Your task to perform on an android device: Go to Yahoo.com Image 0: 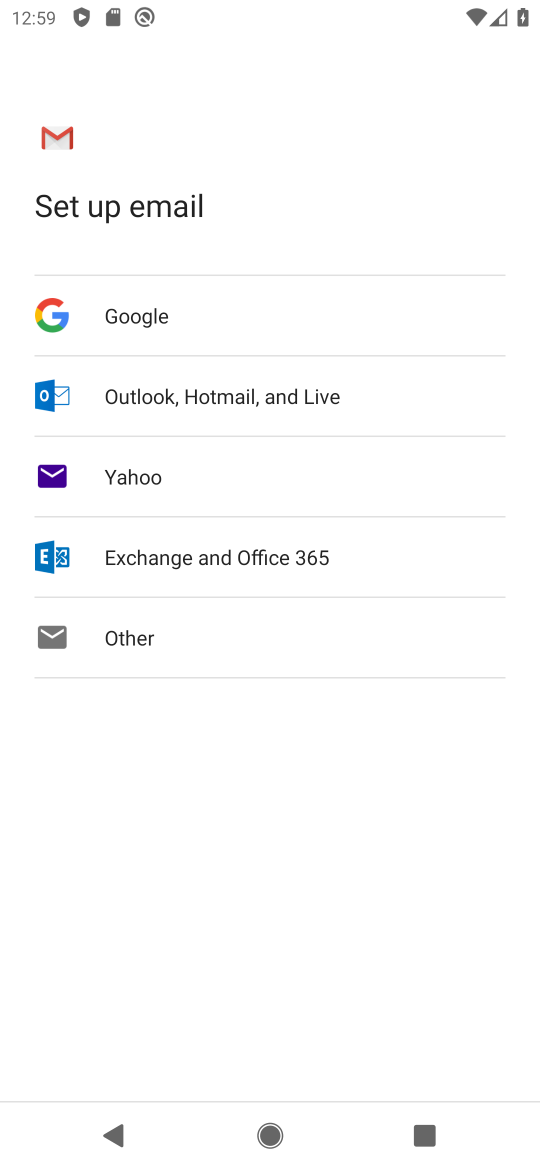
Step 0: press home button
Your task to perform on an android device: Go to Yahoo.com Image 1: 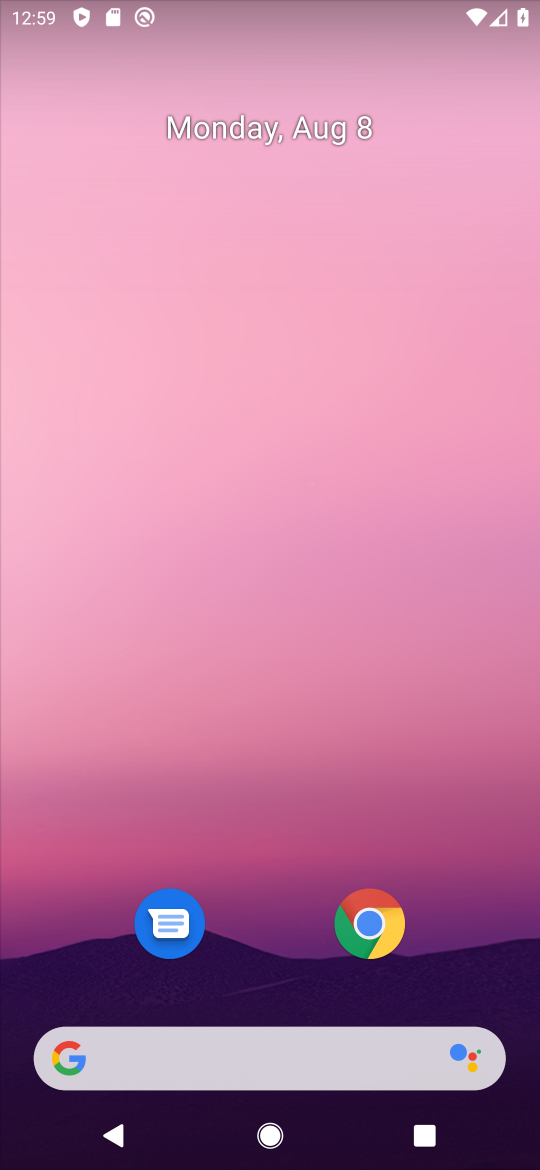
Step 1: click (237, 1071)
Your task to perform on an android device: Go to Yahoo.com Image 2: 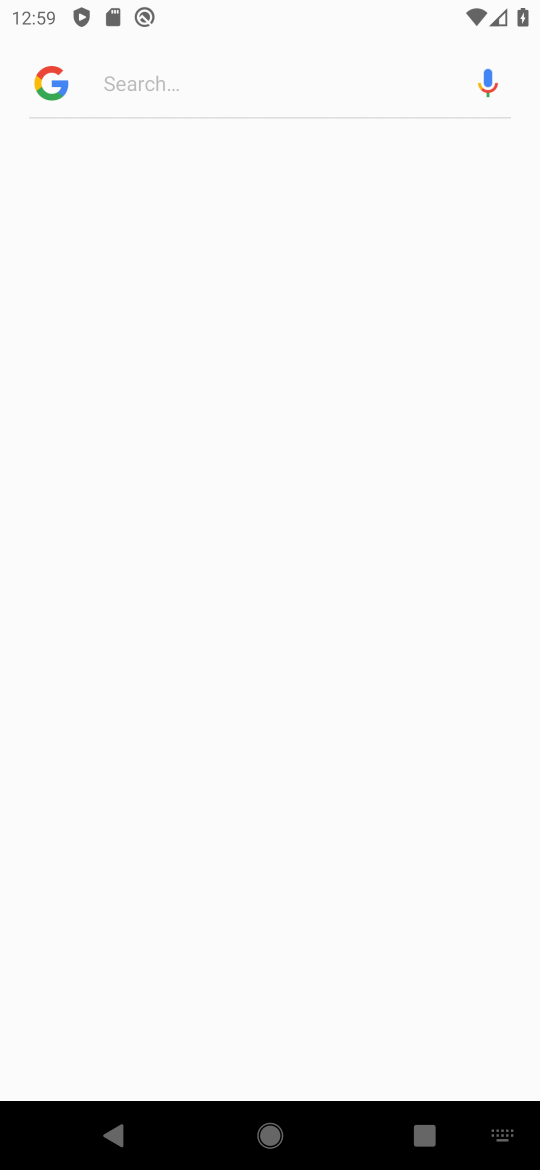
Step 2: type "Yahoo.com"
Your task to perform on an android device: Go to Yahoo.com Image 3: 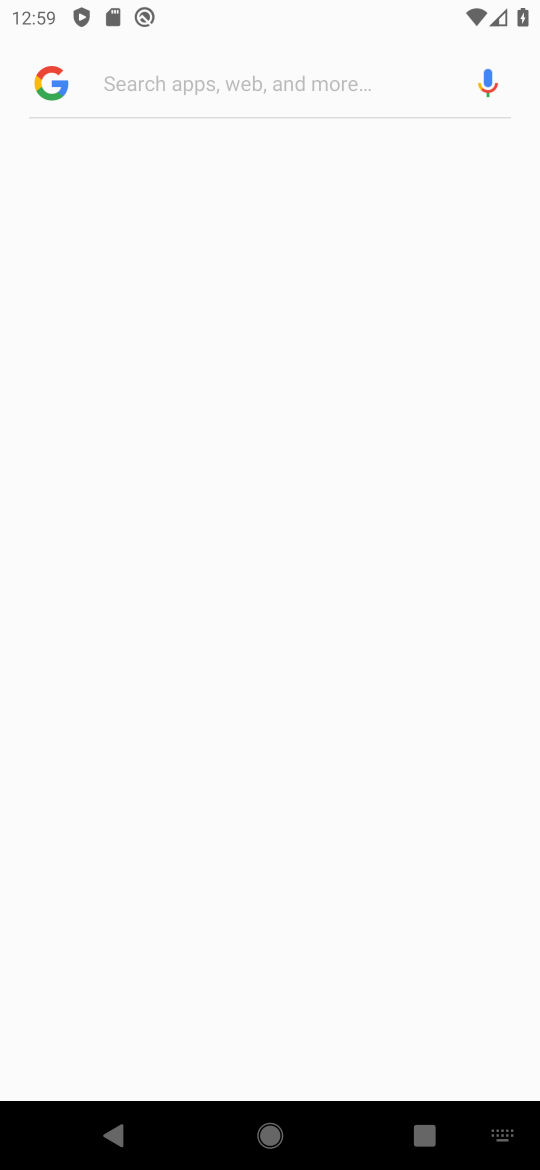
Step 3: press enter
Your task to perform on an android device: Go to Yahoo.com Image 4: 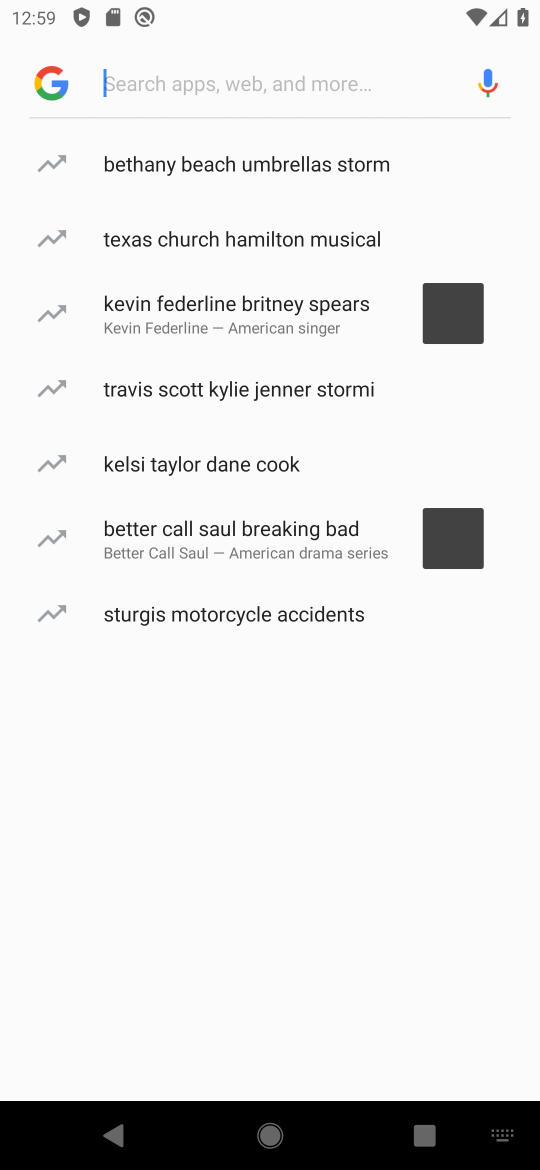
Step 4: press enter
Your task to perform on an android device: Go to Yahoo.com Image 5: 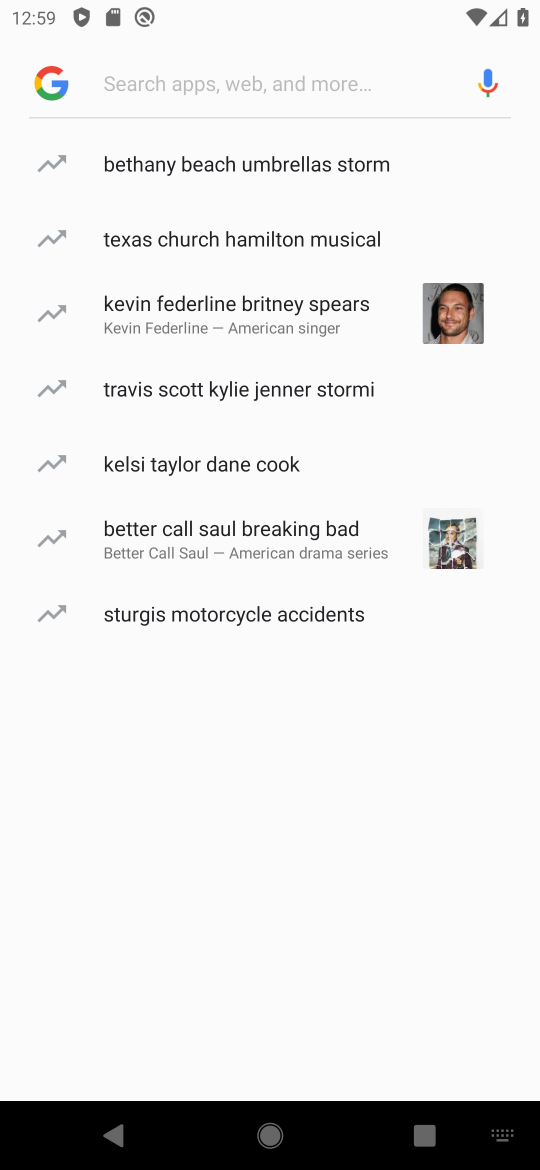
Step 5: type "Yahoo.com"
Your task to perform on an android device: Go to Yahoo.com Image 6: 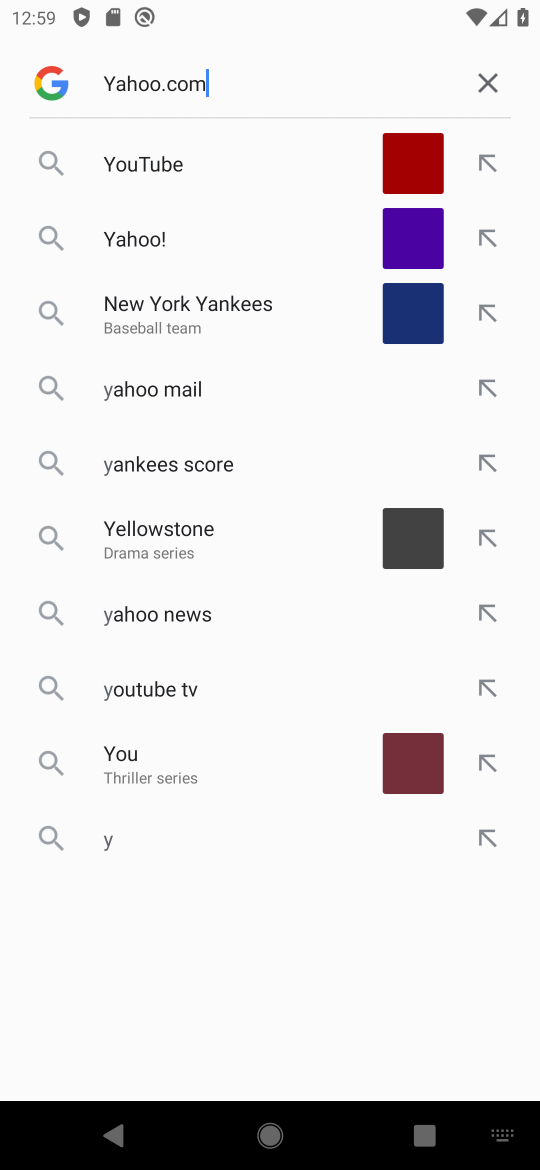
Step 6: press enter
Your task to perform on an android device: Go to Yahoo.com Image 7: 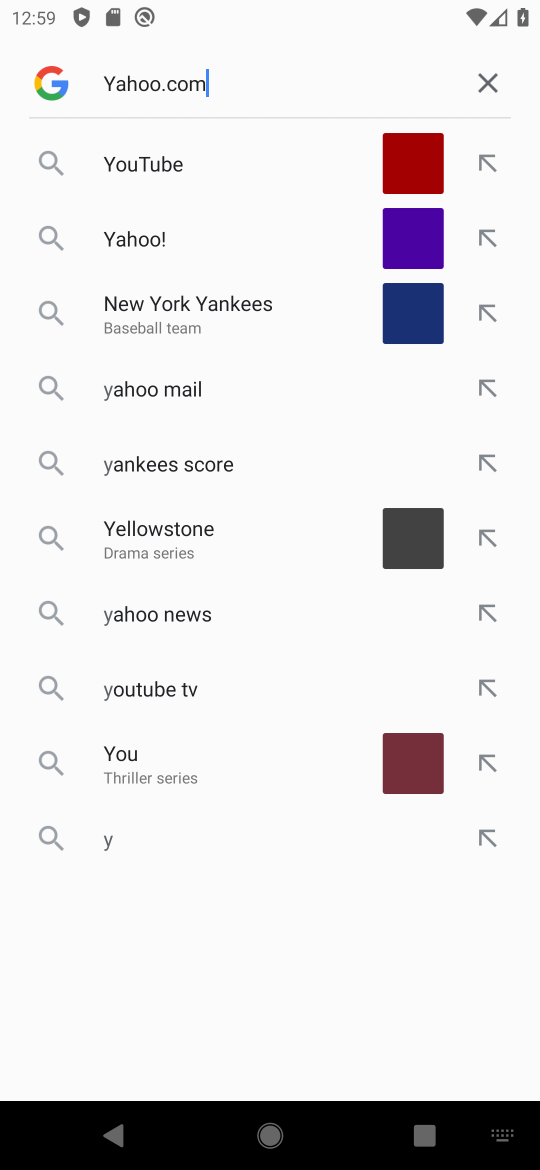
Step 7: type ""
Your task to perform on an android device: Go to Yahoo.com Image 8: 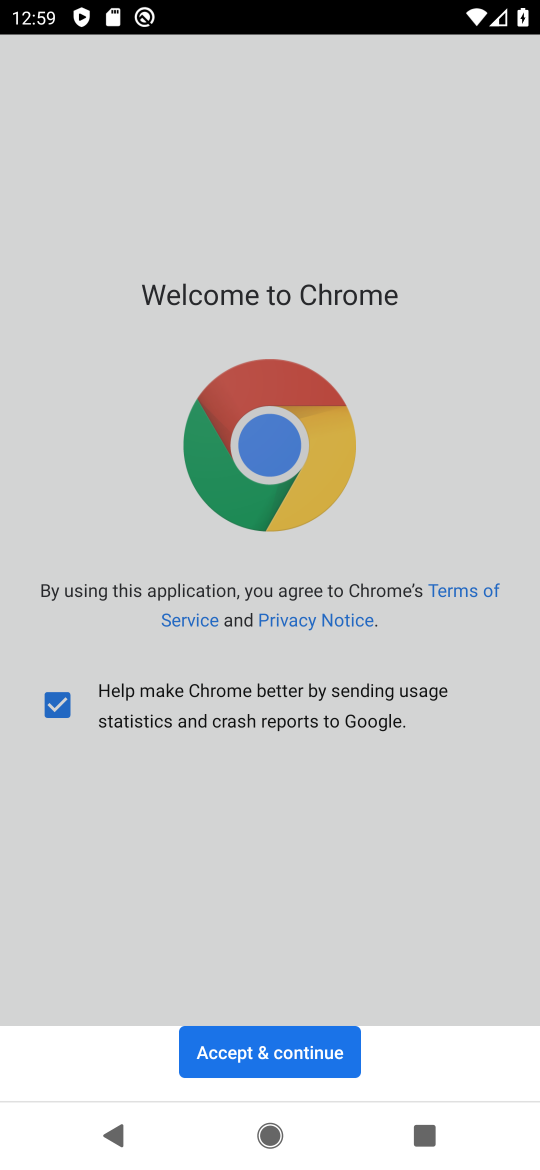
Step 8: click (227, 1053)
Your task to perform on an android device: Go to Yahoo.com Image 9: 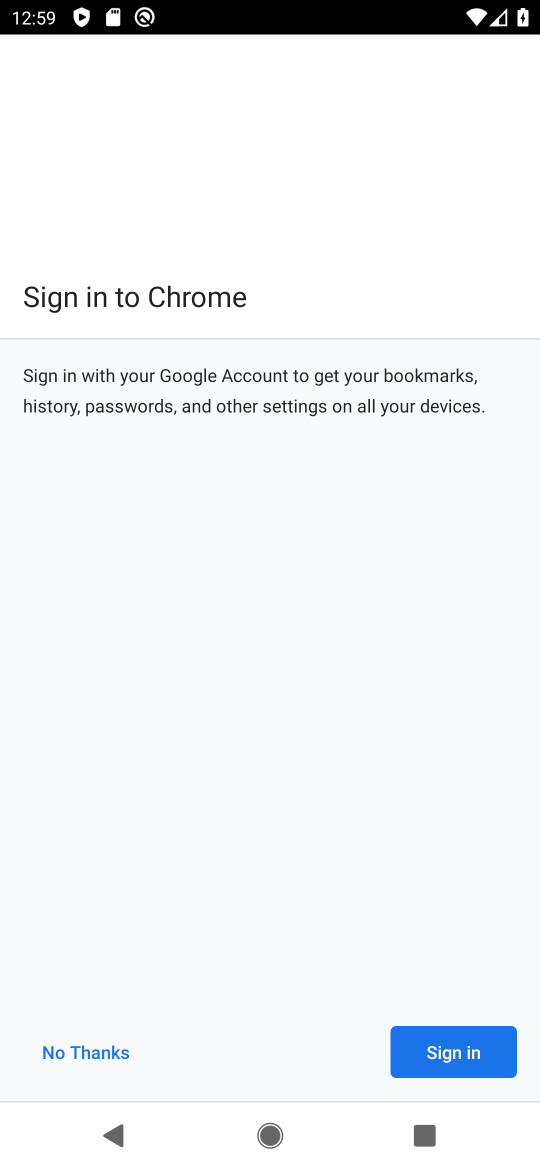
Step 9: click (123, 1052)
Your task to perform on an android device: Go to Yahoo.com Image 10: 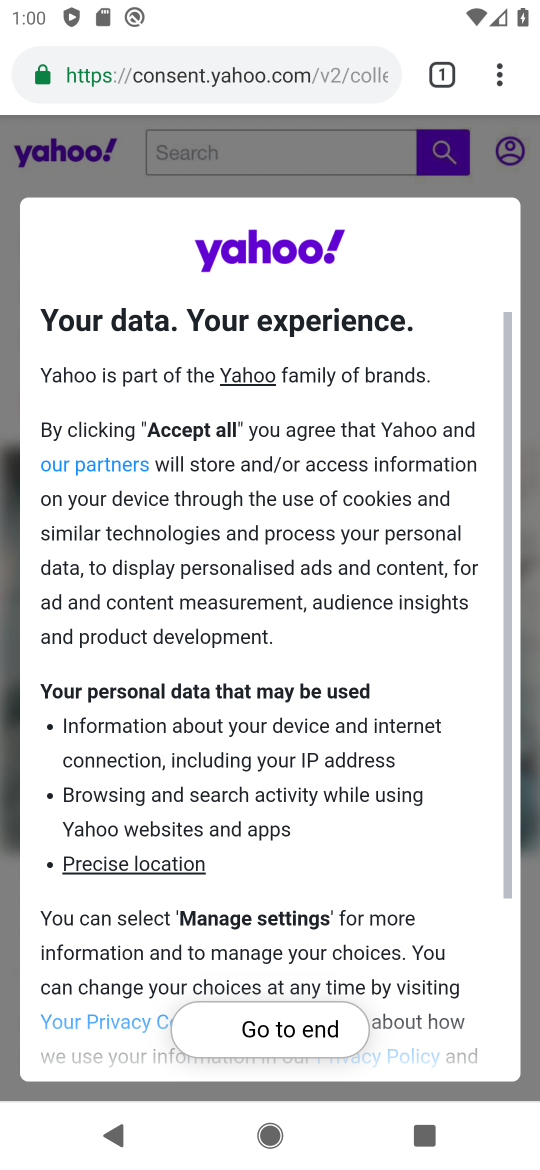
Step 10: task complete